Your task to perform on an android device: Open accessibility settings Image 0: 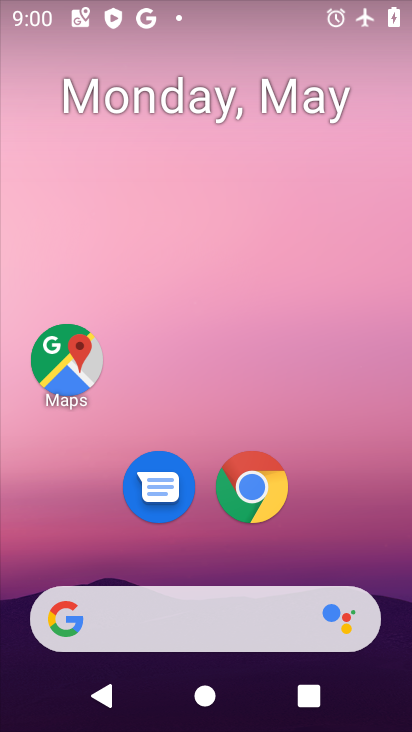
Step 0: drag from (205, 548) to (175, 134)
Your task to perform on an android device: Open accessibility settings Image 1: 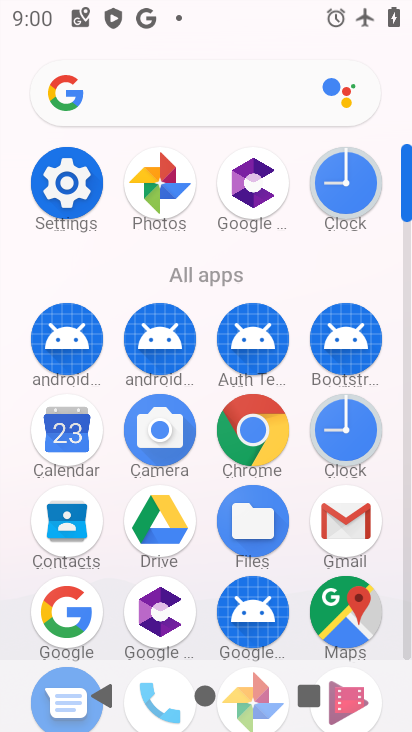
Step 1: click (65, 171)
Your task to perform on an android device: Open accessibility settings Image 2: 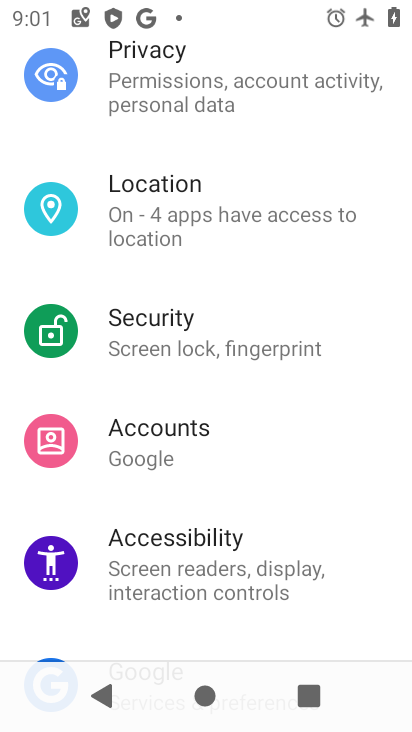
Step 2: click (258, 544)
Your task to perform on an android device: Open accessibility settings Image 3: 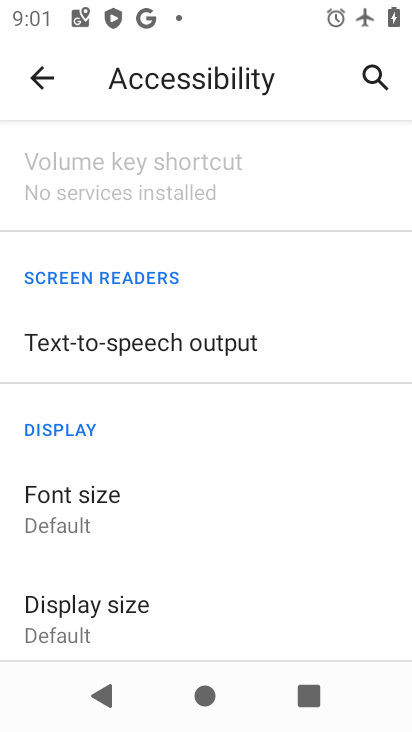
Step 3: task complete